Your task to perform on an android device: Go to sound settings Image 0: 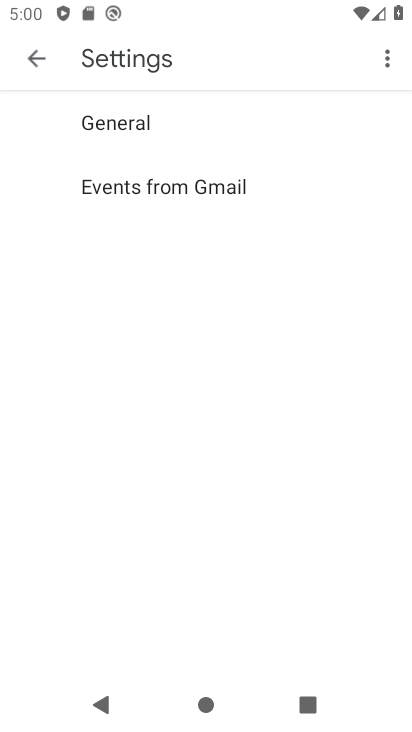
Step 0: press back button
Your task to perform on an android device: Go to sound settings Image 1: 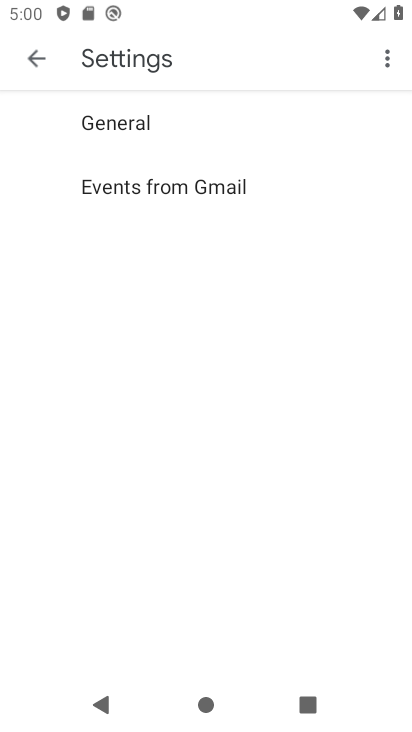
Step 1: press home button
Your task to perform on an android device: Go to sound settings Image 2: 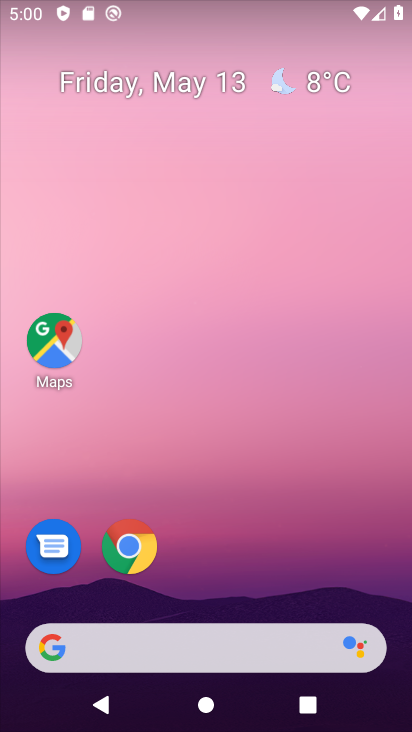
Step 2: drag from (184, 610) to (269, 152)
Your task to perform on an android device: Go to sound settings Image 3: 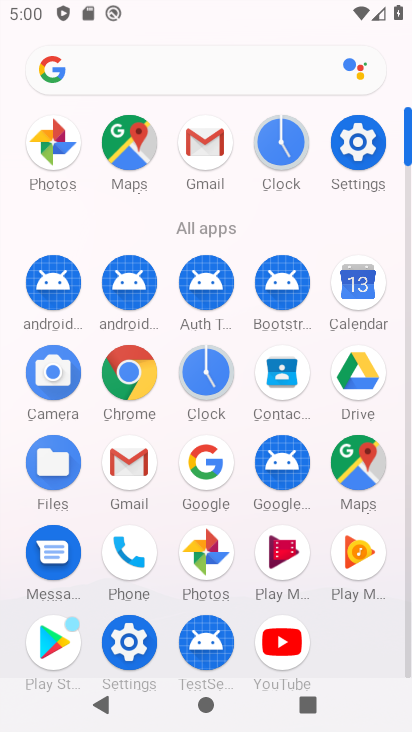
Step 3: drag from (174, 591) to (223, 371)
Your task to perform on an android device: Go to sound settings Image 4: 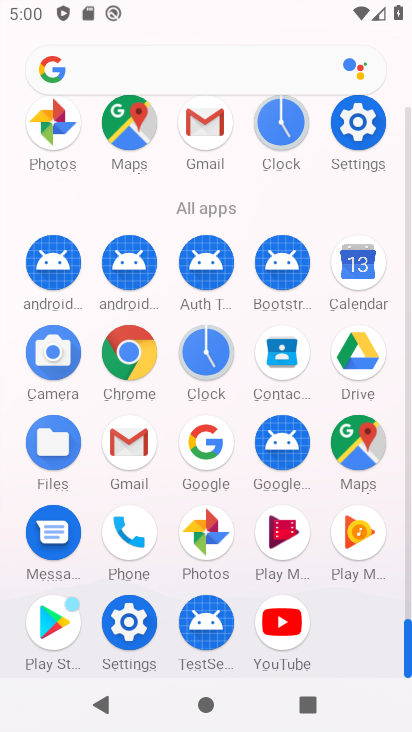
Step 4: click (132, 634)
Your task to perform on an android device: Go to sound settings Image 5: 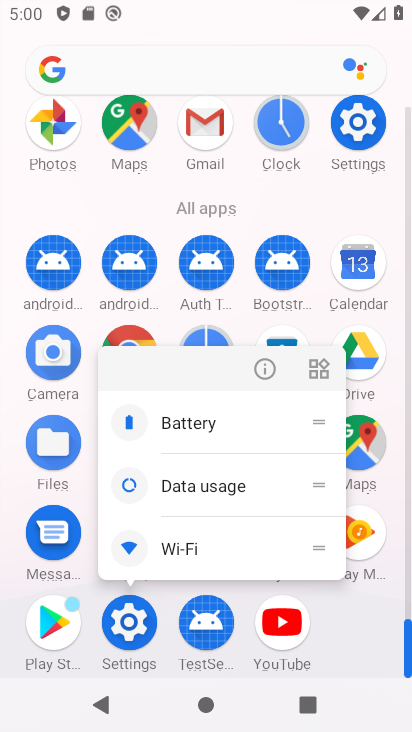
Step 5: click (131, 634)
Your task to perform on an android device: Go to sound settings Image 6: 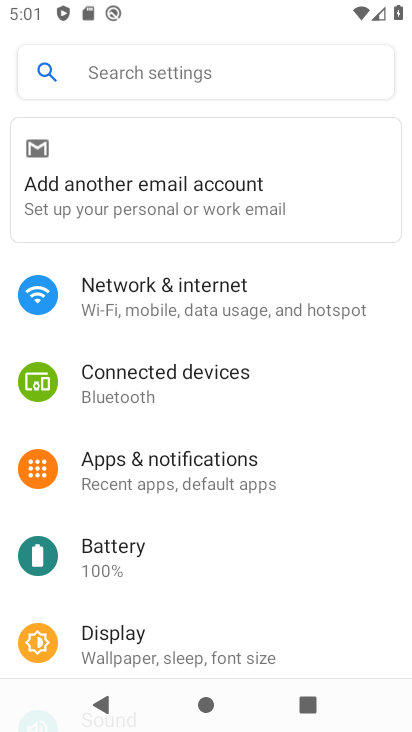
Step 6: drag from (165, 548) to (249, 245)
Your task to perform on an android device: Go to sound settings Image 7: 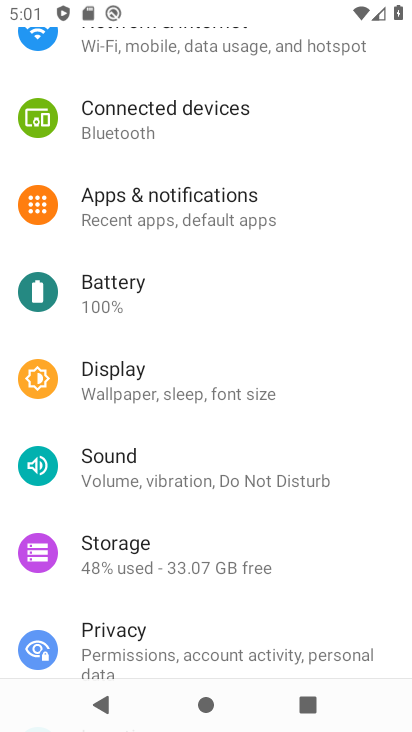
Step 7: click (128, 486)
Your task to perform on an android device: Go to sound settings Image 8: 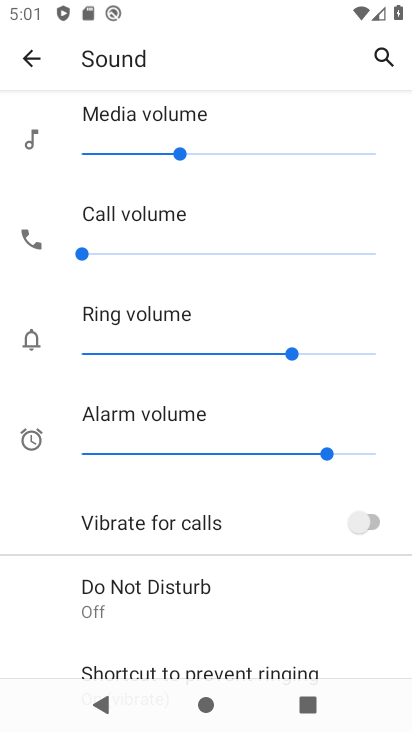
Step 8: task complete